Your task to perform on an android device: see creations saved in the google photos Image 0: 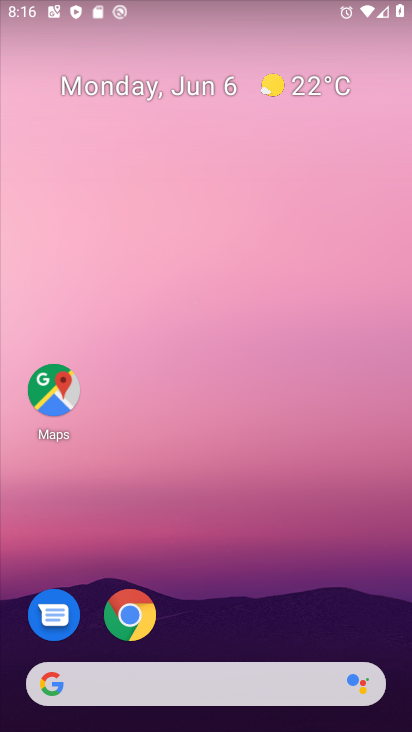
Step 0: drag from (395, 688) to (326, 42)
Your task to perform on an android device: see creations saved in the google photos Image 1: 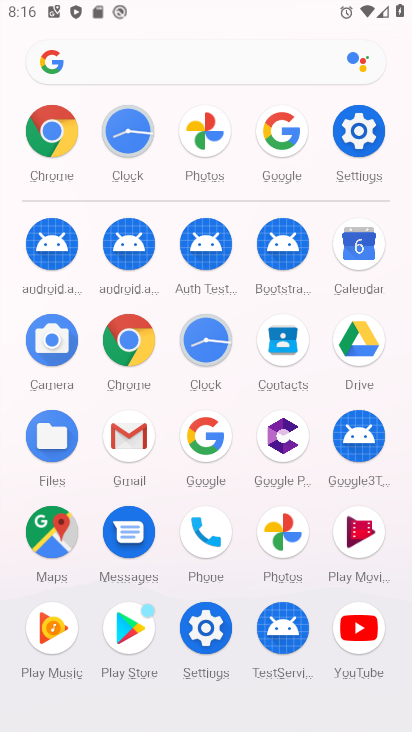
Step 1: click (272, 536)
Your task to perform on an android device: see creations saved in the google photos Image 2: 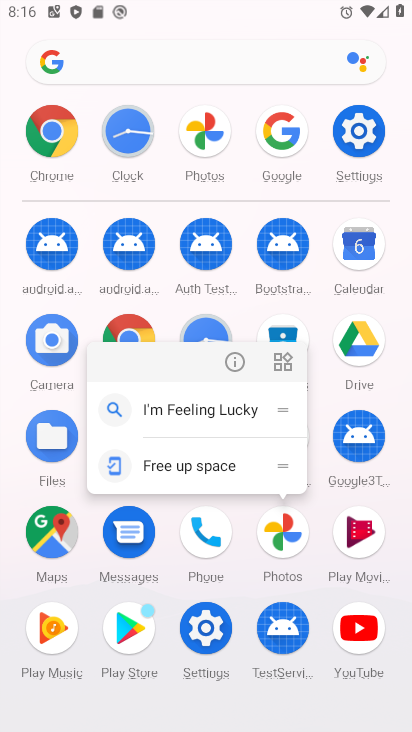
Step 2: click (278, 525)
Your task to perform on an android device: see creations saved in the google photos Image 3: 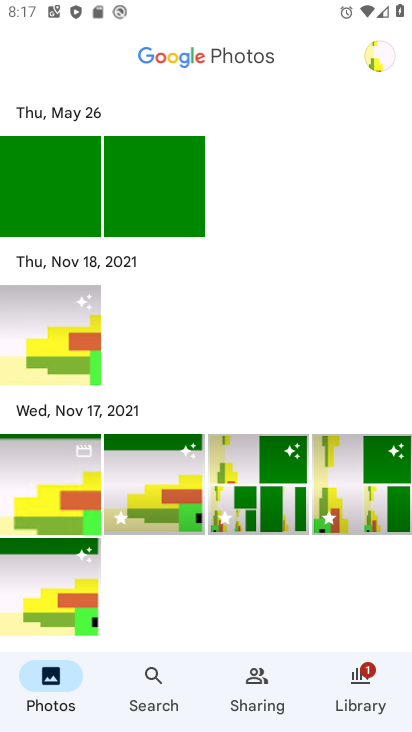
Step 3: click (346, 474)
Your task to perform on an android device: see creations saved in the google photos Image 4: 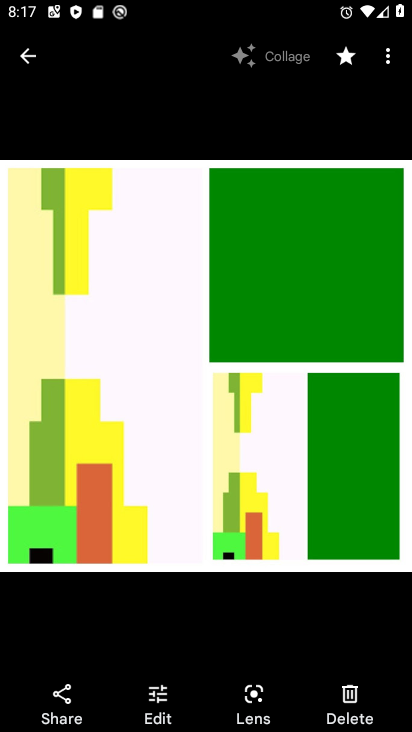
Step 4: click (39, 61)
Your task to perform on an android device: see creations saved in the google photos Image 5: 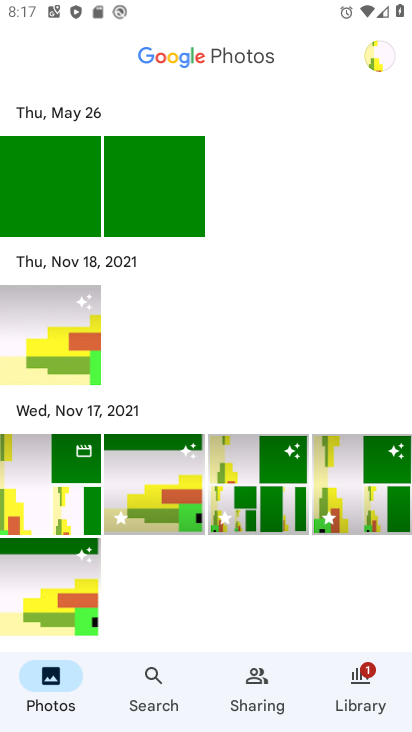
Step 5: click (91, 598)
Your task to perform on an android device: see creations saved in the google photos Image 6: 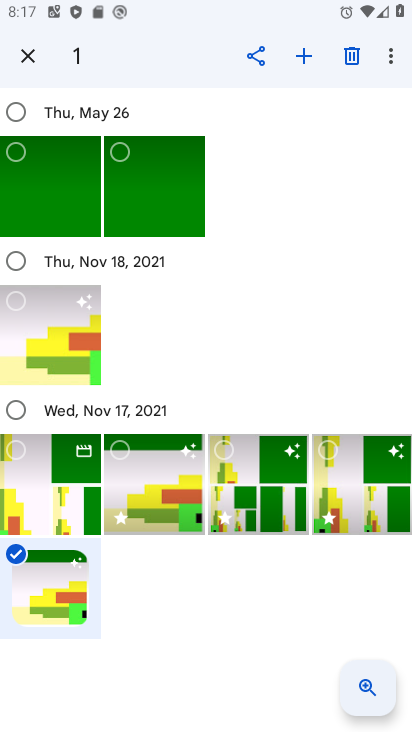
Step 6: click (24, 55)
Your task to perform on an android device: see creations saved in the google photos Image 7: 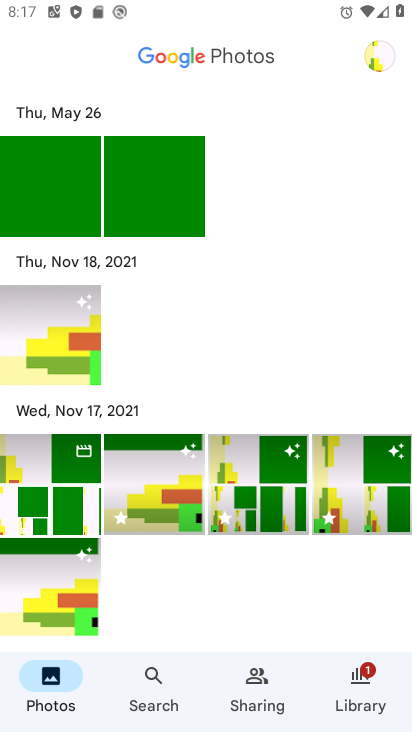
Step 7: click (42, 586)
Your task to perform on an android device: see creations saved in the google photos Image 8: 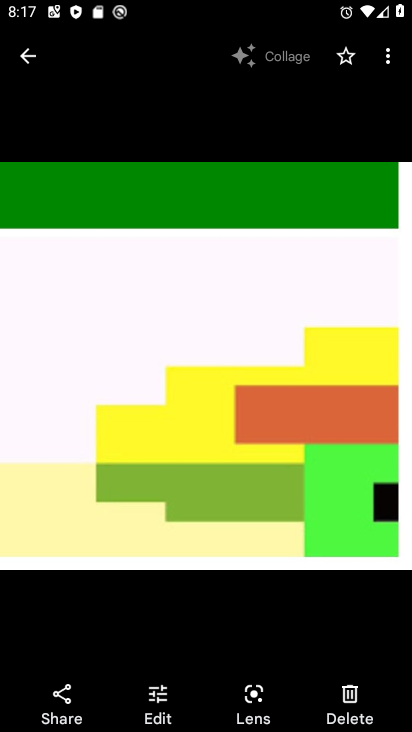
Step 8: click (37, 64)
Your task to perform on an android device: see creations saved in the google photos Image 9: 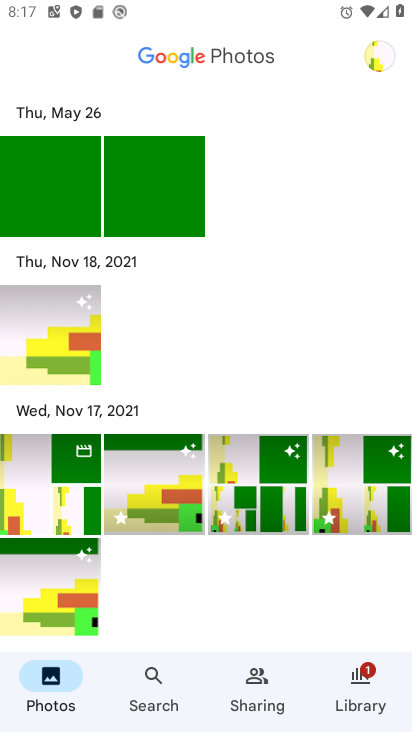
Step 9: task complete